Your task to perform on an android device: empty trash in google photos Image 0: 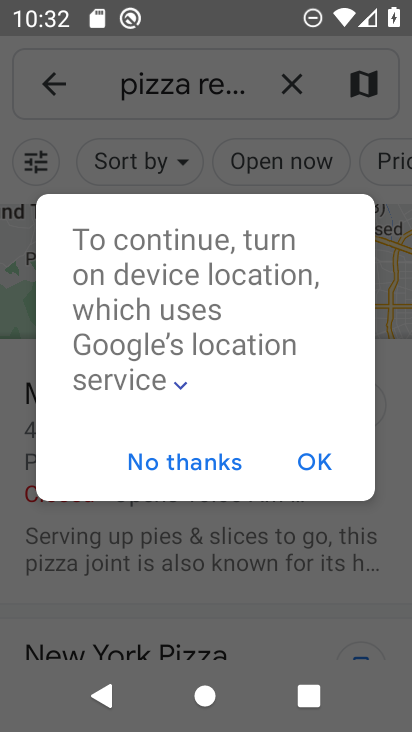
Step 0: press home button
Your task to perform on an android device: empty trash in google photos Image 1: 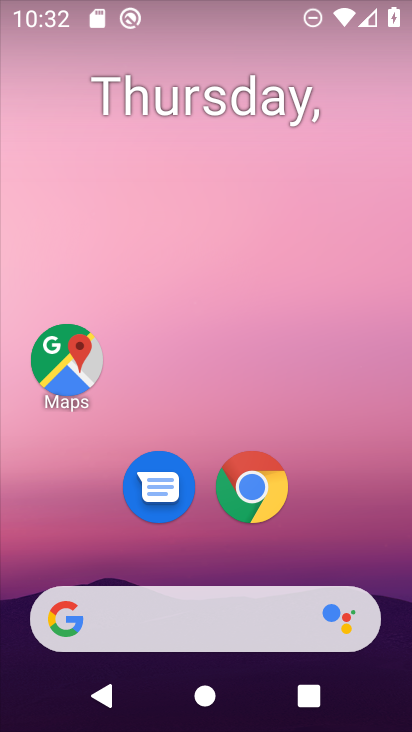
Step 1: drag from (315, 541) to (112, 14)
Your task to perform on an android device: empty trash in google photos Image 2: 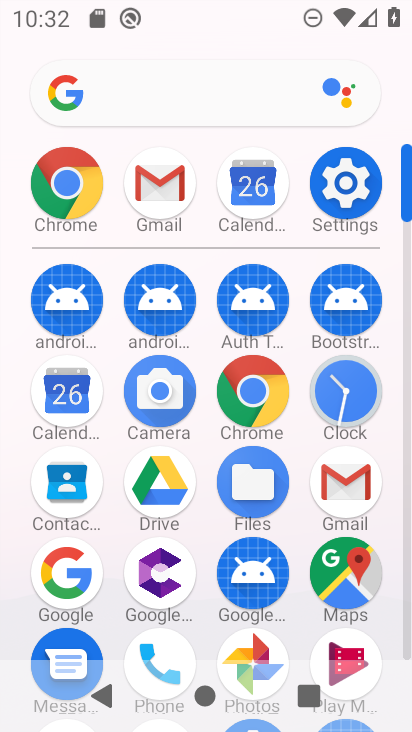
Step 2: click (256, 643)
Your task to perform on an android device: empty trash in google photos Image 3: 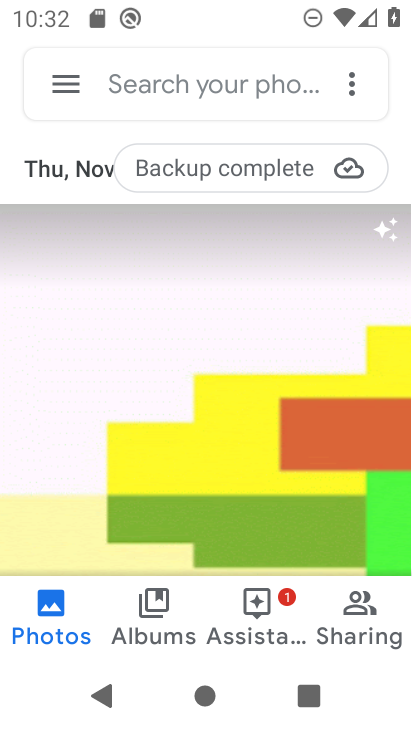
Step 3: click (68, 86)
Your task to perform on an android device: empty trash in google photos Image 4: 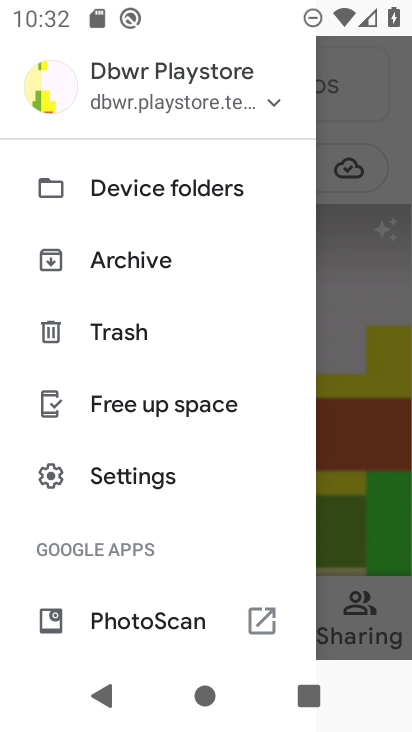
Step 4: click (88, 330)
Your task to perform on an android device: empty trash in google photos Image 5: 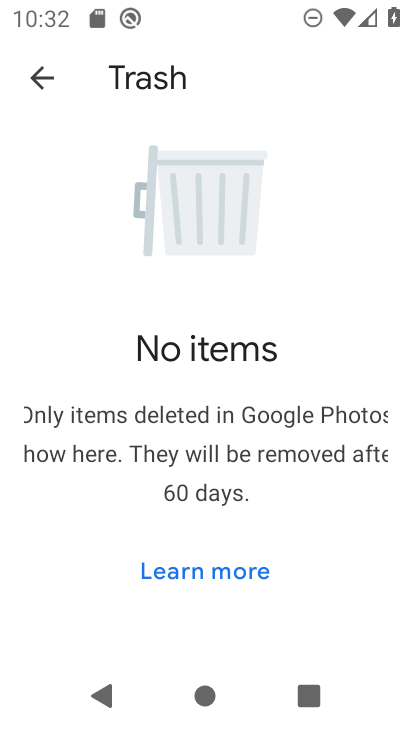
Step 5: task complete